Your task to perform on an android device: toggle priority inbox in the gmail app Image 0: 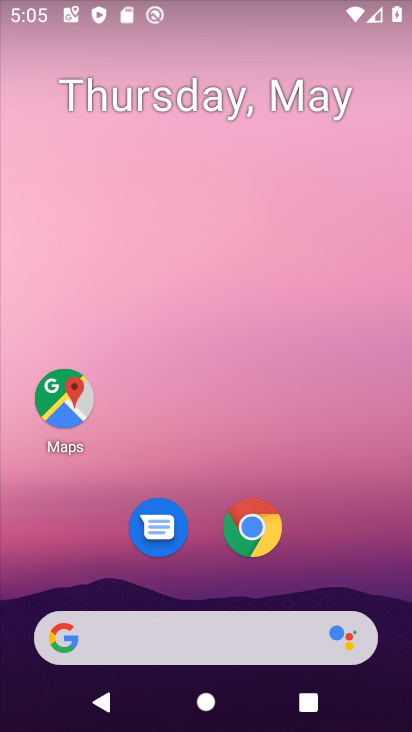
Step 0: drag from (330, 477) to (301, 1)
Your task to perform on an android device: toggle priority inbox in the gmail app Image 1: 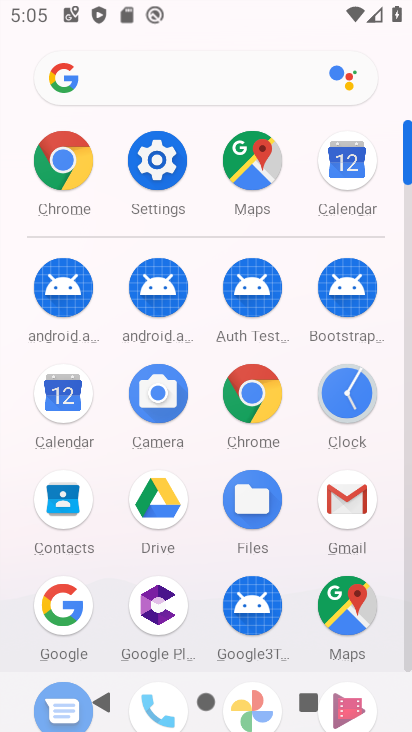
Step 1: click (361, 477)
Your task to perform on an android device: toggle priority inbox in the gmail app Image 2: 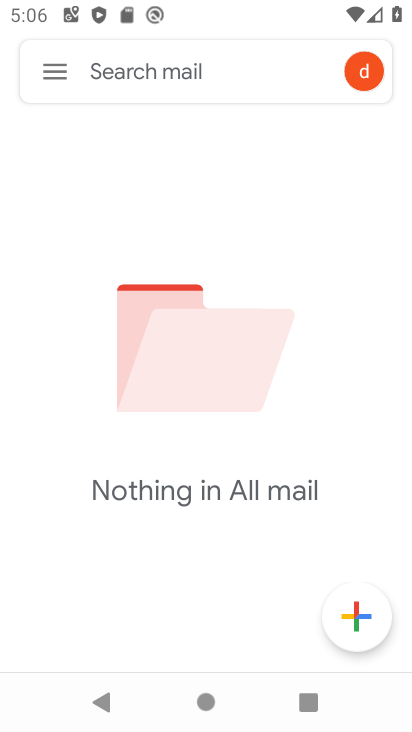
Step 2: click (51, 75)
Your task to perform on an android device: toggle priority inbox in the gmail app Image 3: 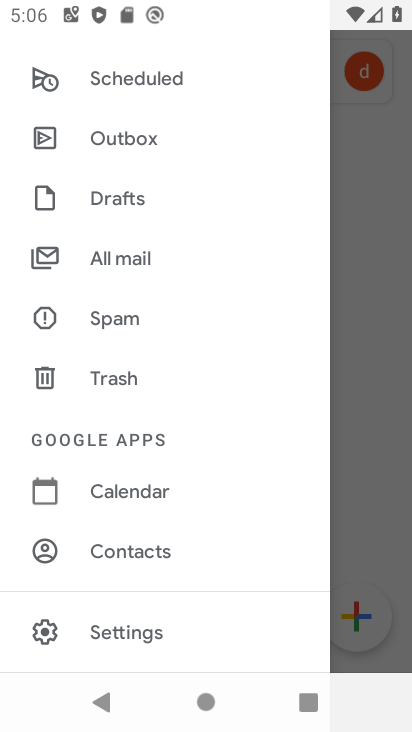
Step 3: drag from (147, 627) to (180, 126)
Your task to perform on an android device: toggle priority inbox in the gmail app Image 4: 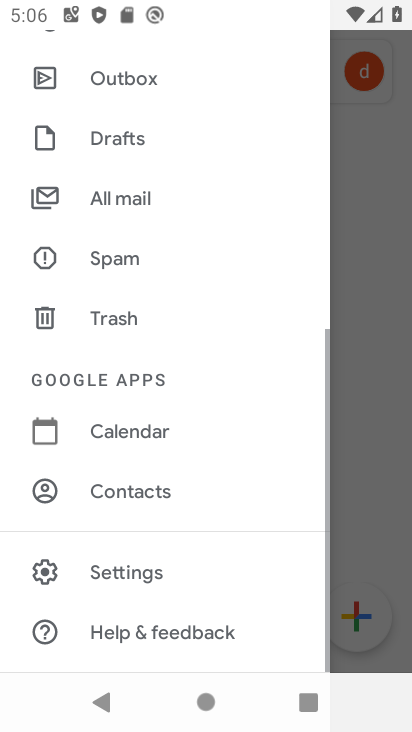
Step 4: click (125, 566)
Your task to perform on an android device: toggle priority inbox in the gmail app Image 5: 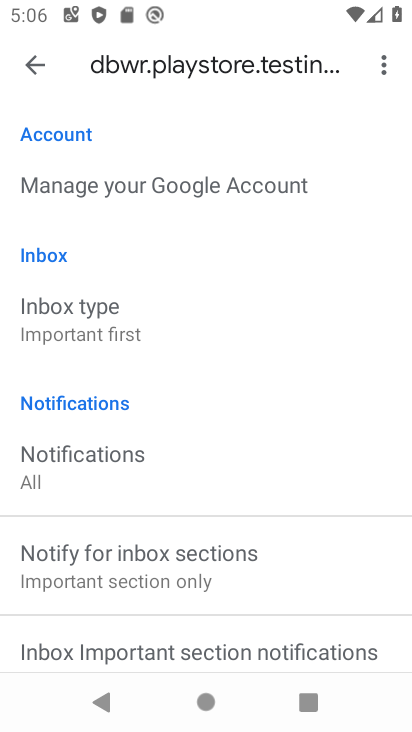
Step 5: drag from (125, 565) to (173, 170)
Your task to perform on an android device: toggle priority inbox in the gmail app Image 6: 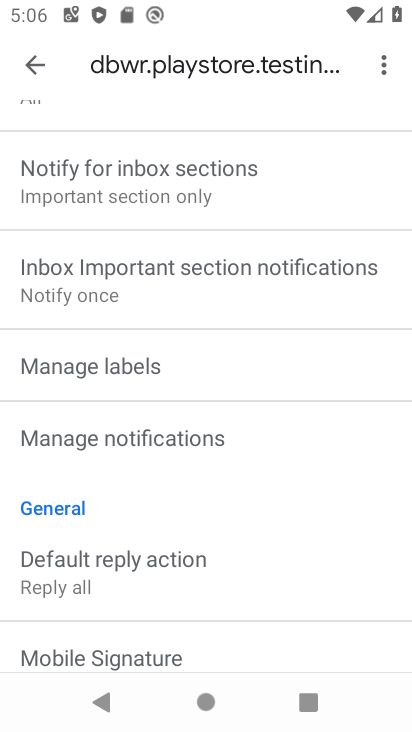
Step 6: drag from (248, 545) to (258, 190)
Your task to perform on an android device: toggle priority inbox in the gmail app Image 7: 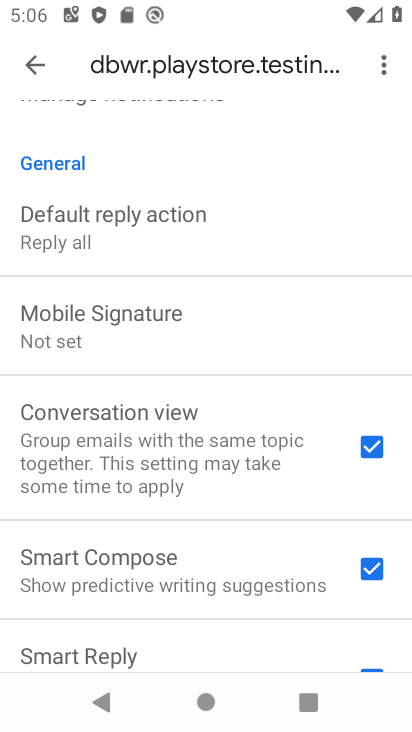
Step 7: drag from (196, 372) to (271, 713)
Your task to perform on an android device: toggle priority inbox in the gmail app Image 8: 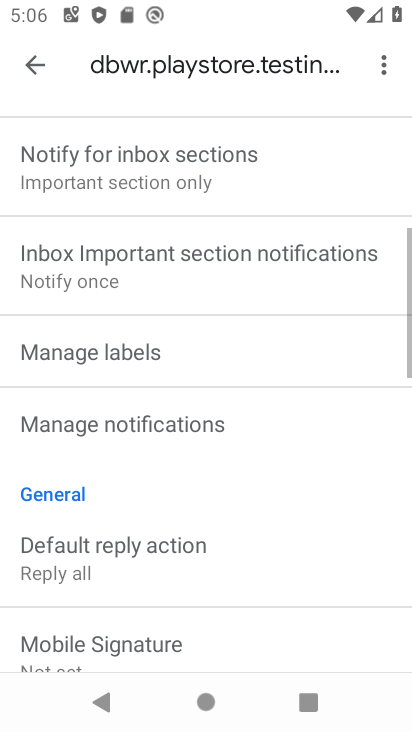
Step 8: drag from (230, 259) to (213, 678)
Your task to perform on an android device: toggle priority inbox in the gmail app Image 9: 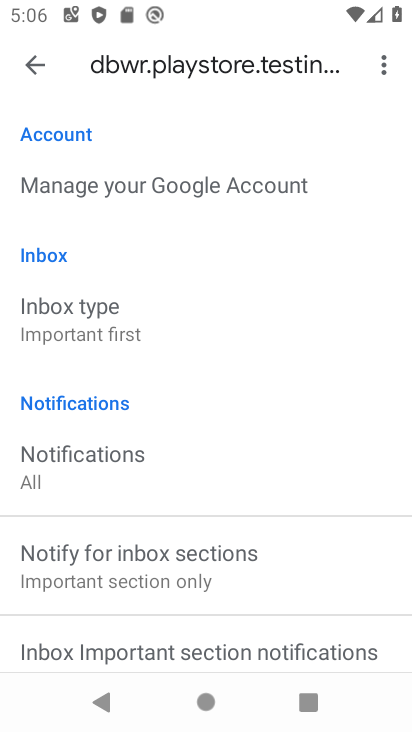
Step 9: drag from (163, 122) to (199, 677)
Your task to perform on an android device: toggle priority inbox in the gmail app Image 10: 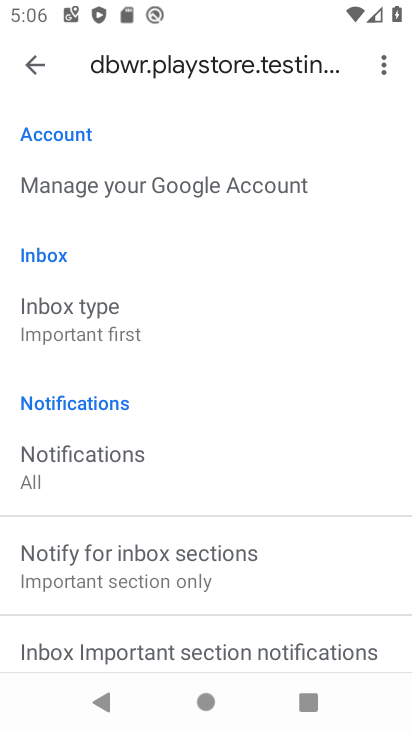
Step 10: drag from (193, 492) to (233, 214)
Your task to perform on an android device: toggle priority inbox in the gmail app Image 11: 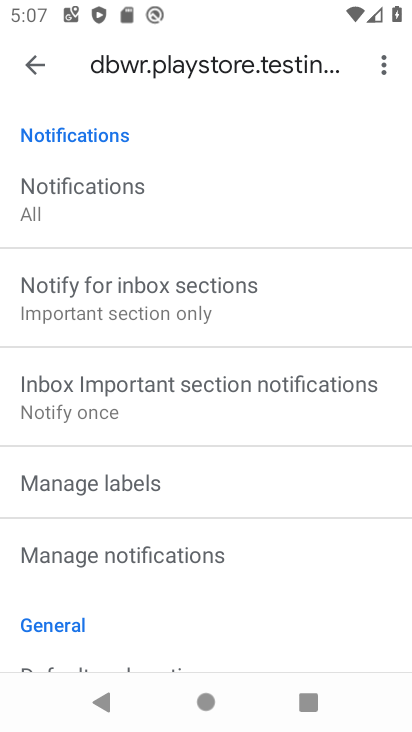
Step 11: drag from (146, 234) to (161, 540)
Your task to perform on an android device: toggle priority inbox in the gmail app Image 12: 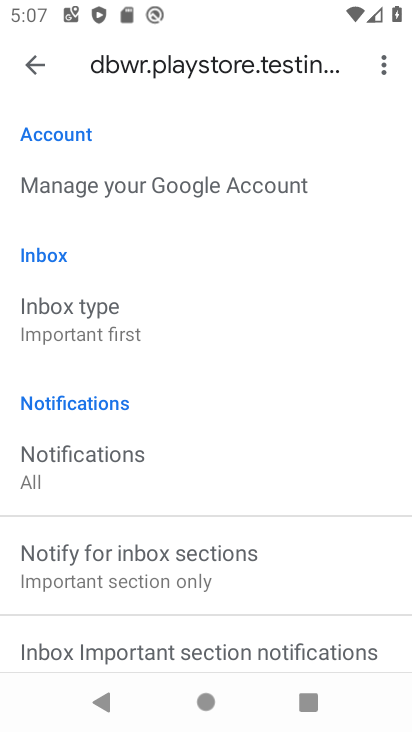
Step 12: drag from (139, 317) to (187, 551)
Your task to perform on an android device: toggle priority inbox in the gmail app Image 13: 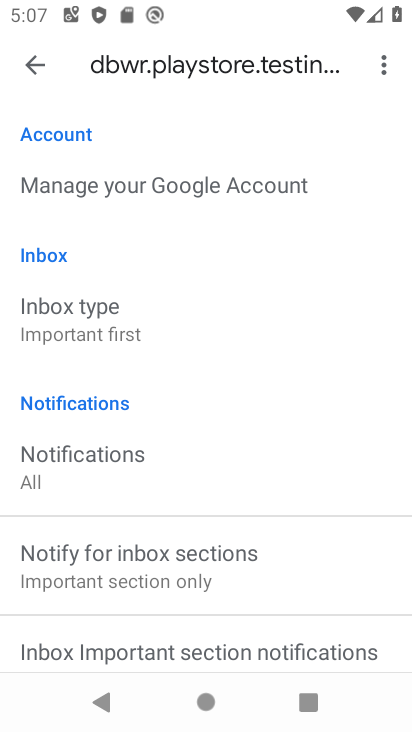
Step 13: click (79, 342)
Your task to perform on an android device: toggle priority inbox in the gmail app Image 14: 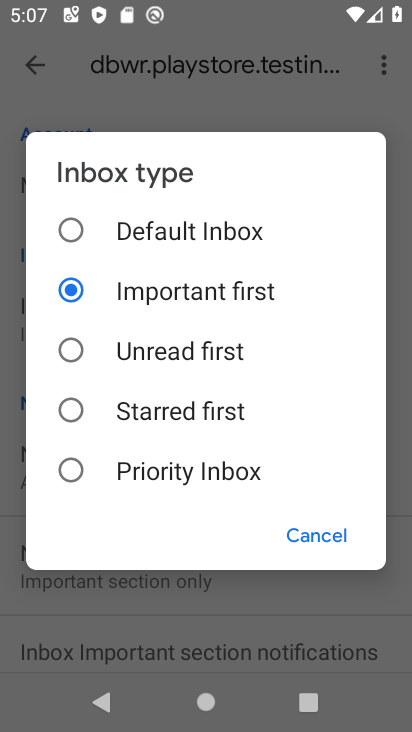
Step 14: click (245, 459)
Your task to perform on an android device: toggle priority inbox in the gmail app Image 15: 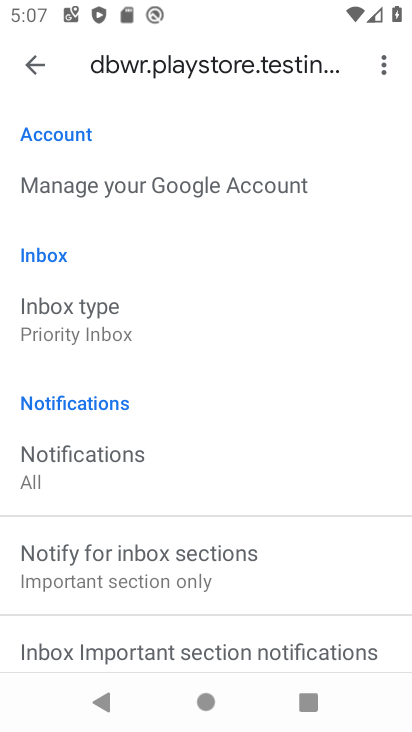
Step 15: task complete